Your task to perform on an android device: toggle javascript in the chrome app Image 0: 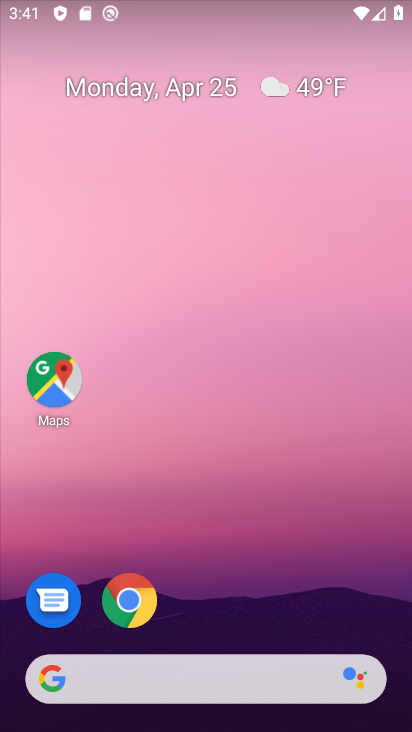
Step 0: click (135, 597)
Your task to perform on an android device: toggle javascript in the chrome app Image 1: 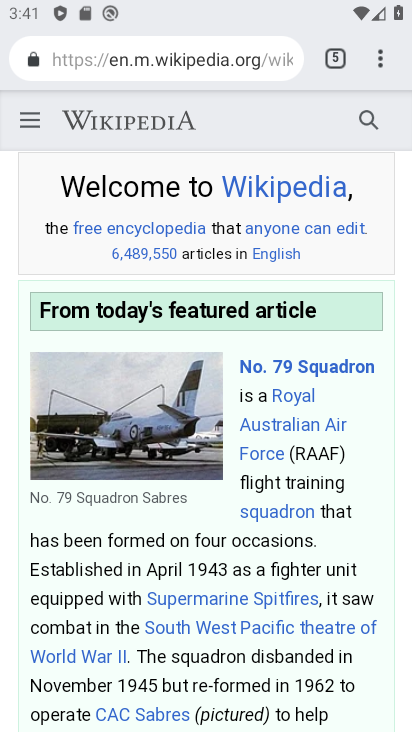
Step 1: click (376, 53)
Your task to perform on an android device: toggle javascript in the chrome app Image 2: 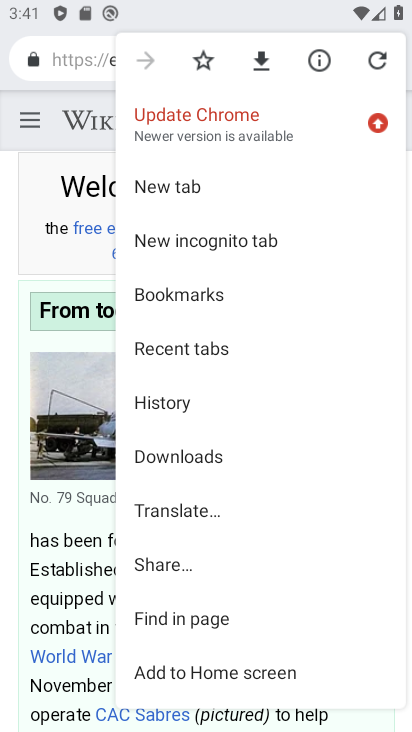
Step 2: drag from (256, 587) to (253, 271)
Your task to perform on an android device: toggle javascript in the chrome app Image 3: 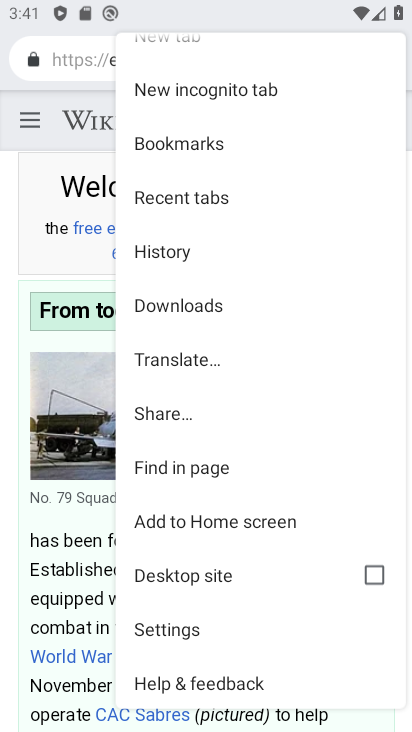
Step 3: click (205, 629)
Your task to perform on an android device: toggle javascript in the chrome app Image 4: 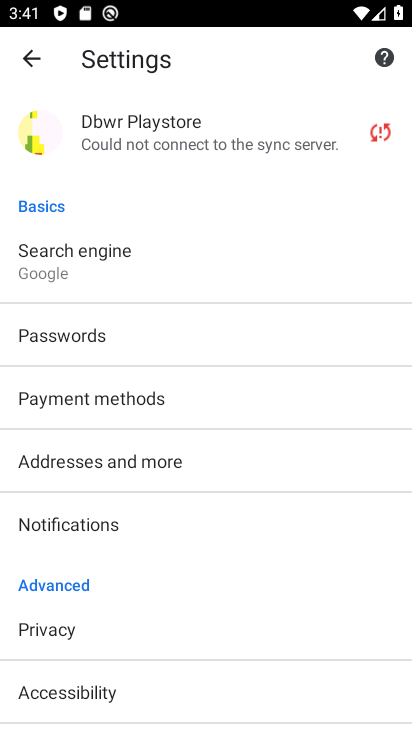
Step 4: drag from (230, 603) to (244, 320)
Your task to perform on an android device: toggle javascript in the chrome app Image 5: 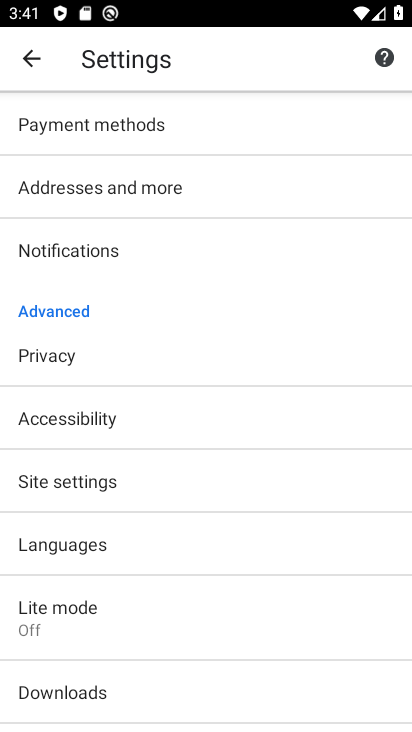
Step 5: click (182, 478)
Your task to perform on an android device: toggle javascript in the chrome app Image 6: 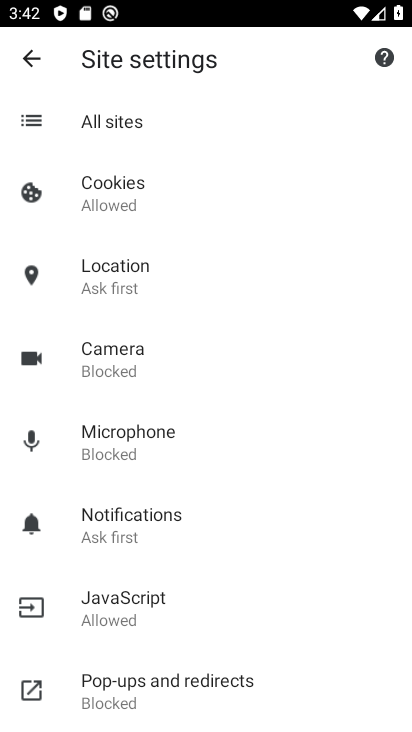
Step 6: click (194, 609)
Your task to perform on an android device: toggle javascript in the chrome app Image 7: 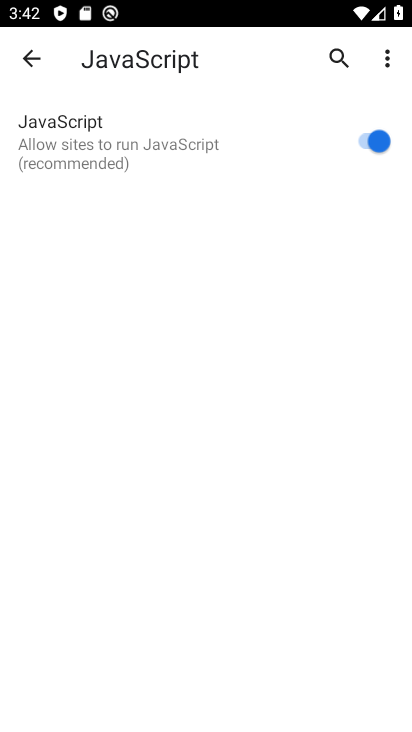
Step 7: click (352, 133)
Your task to perform on an android device: toggle javascript in the chrome app Image 8: 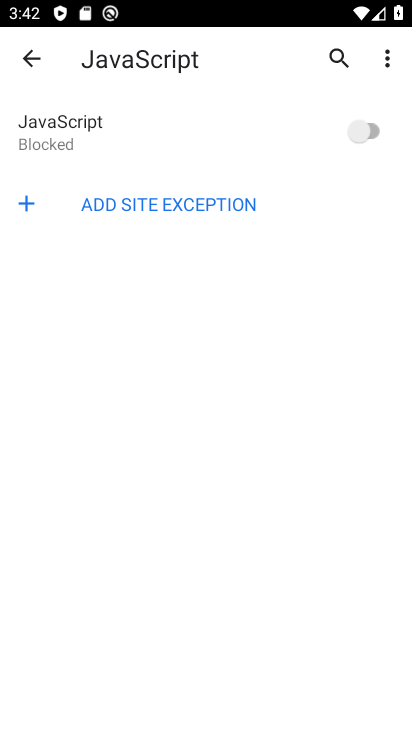
Step 8: task complete